Your task to perform on an android device: turn off notifications settings in the gmail app Image 0: 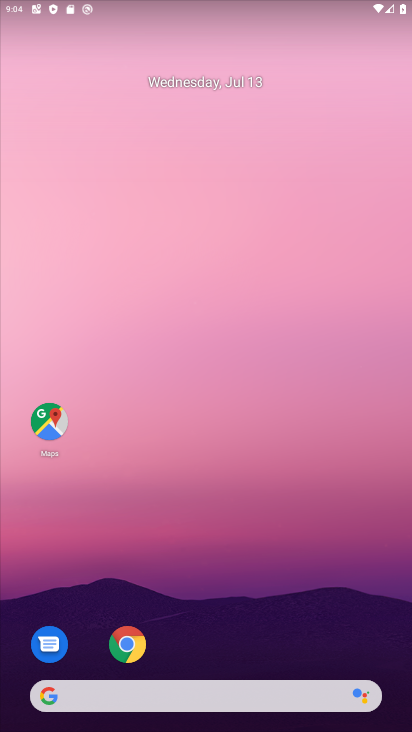
Step 0: drag from (190, 717) to (174, 169)
Your task to perform on an android device: turn off notifications settings in the gmail app Image 1: 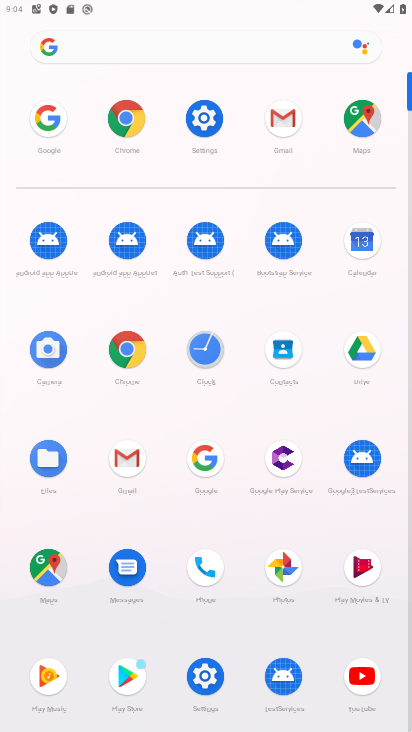
Step 1: click (132, 459)
Your task to perform on an android device: turn off notifications settings in the gmail app Image 2: 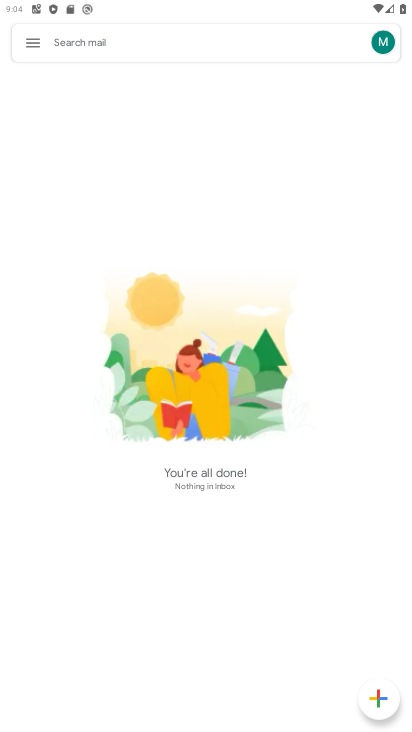
Step 2: click (29, 40)
Your task to perform on an android device: turn off notifications settings in the gmail app Image 3: 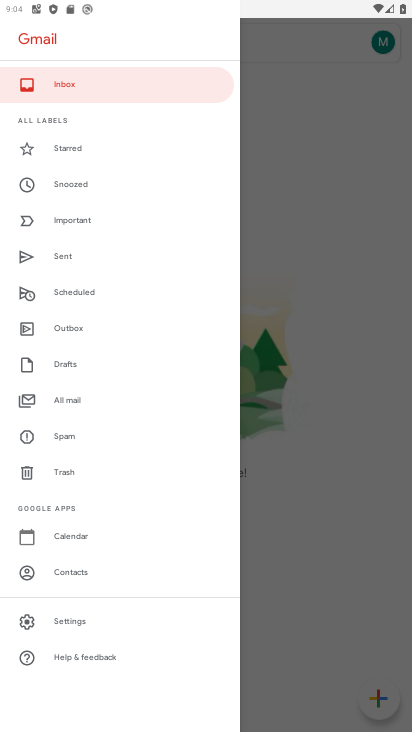
Step 3: click (79, 622)
Your task to perform on an android device: turn off notifications settings in the gmail app Image 4: 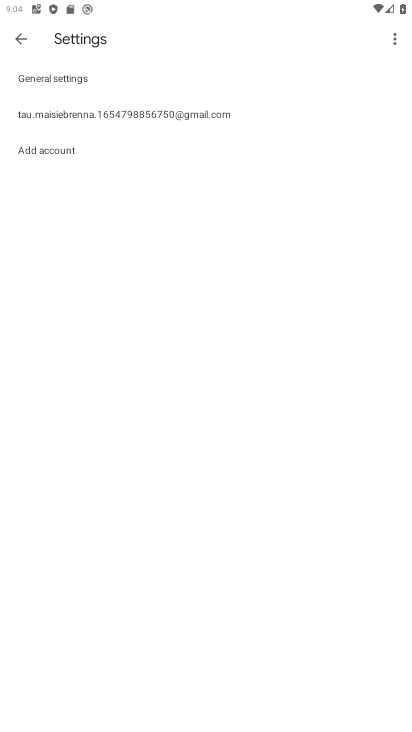
Step 4: click (148, 115)
Your task to perform on an android device: turn off notifications settings in the gmail app Image 5: 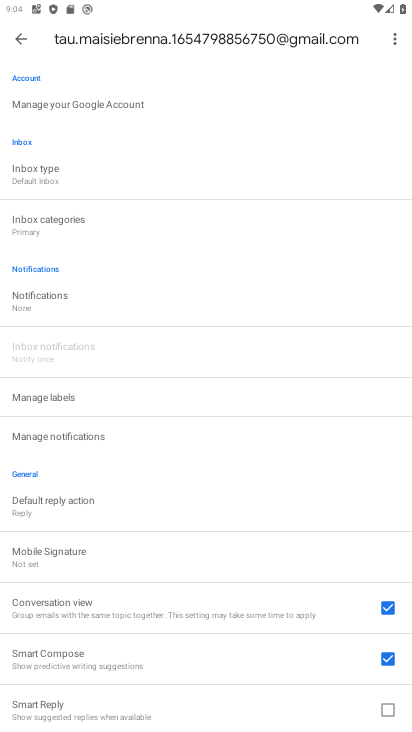
Step 5: task complete